Your task to perform on an android device: Search for Italian restaurants on Maps Image 0: 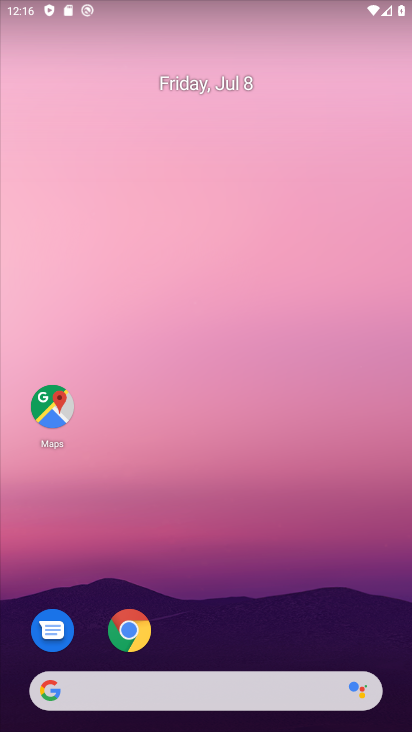
Step 0: drag from (386, 687) to (257, 35)
Your task to perform on an android device: Search for Italian restaurants on Maps Image 1: 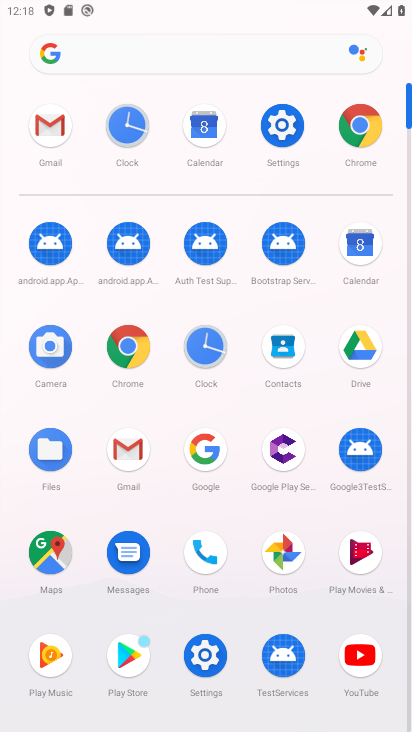
Step 1: click (54, 551)
Your task to perform on an android device: Search for Italian restaurants on Maps Image 2: 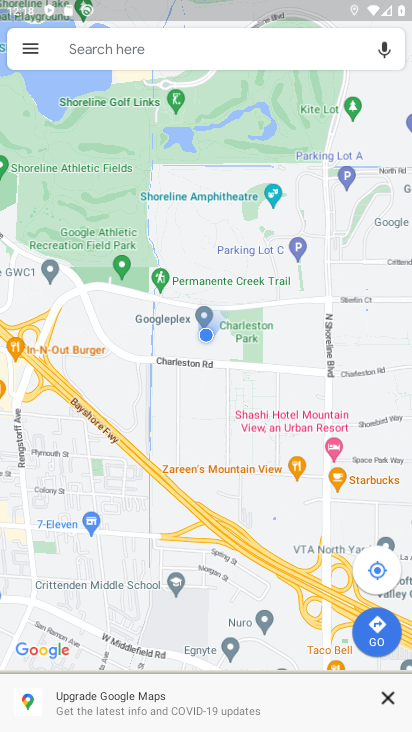
Step 2: click (168, 50)
Your task to perform on an android device: Search for Italian restaurants on Maps Image 3: 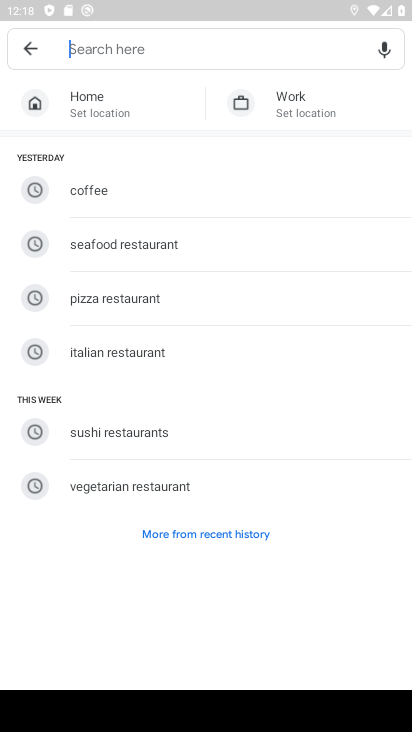
Step 3: type " Italian restaurants"
Your task to perform on an android device: Search for Italian restaurants on Maps Image 4: 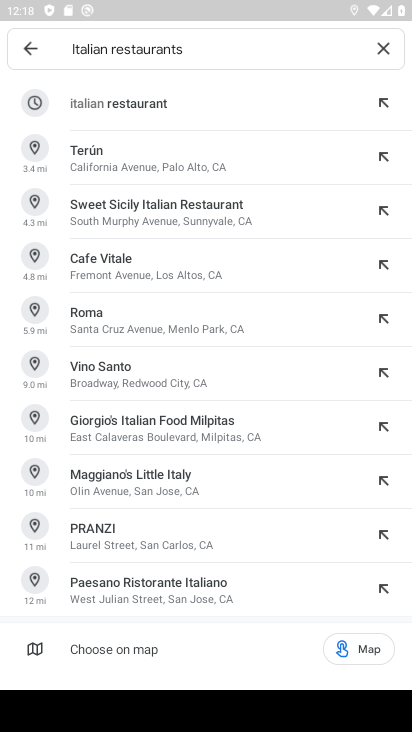
Step 4: click (143, 104)
Your task to perform on an android device: Search for Italian restaurants on Maps Image 5: 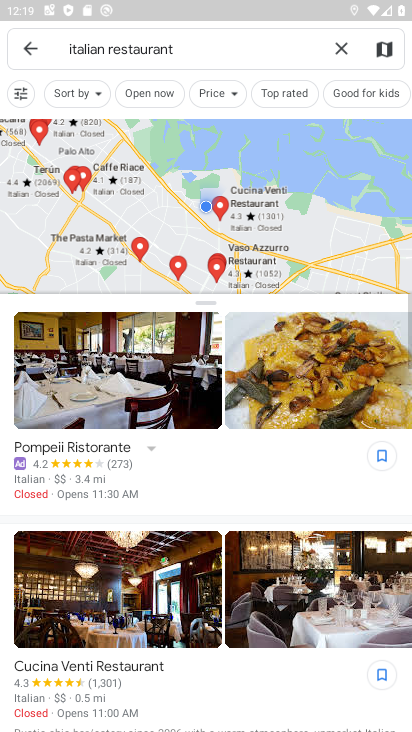
Step 5: task complete